Your task to perform on an android device: change timer sound Image 0: 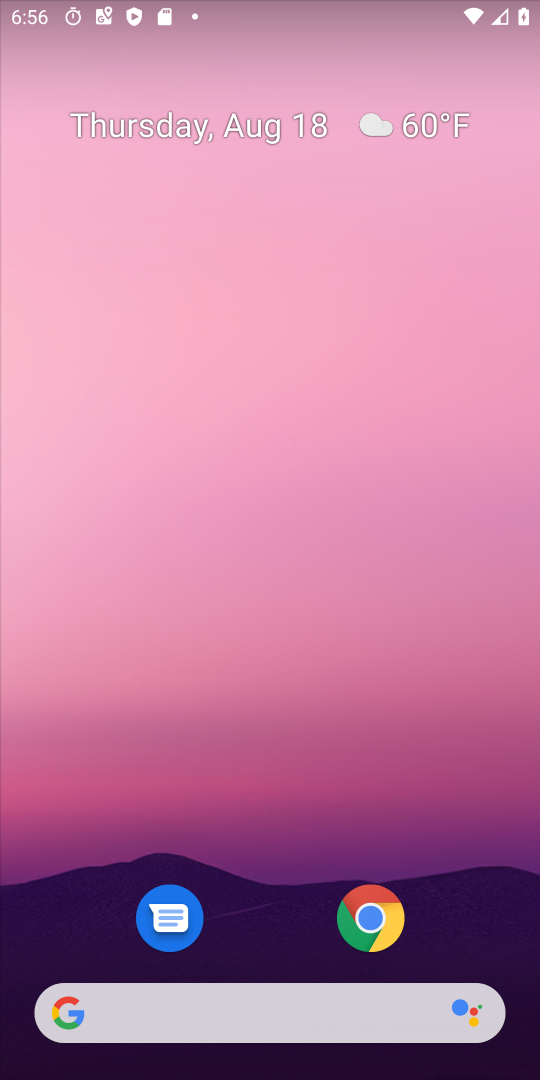
Step 0: press home button
Your task to perform on an android device: change timer sound Image 1: 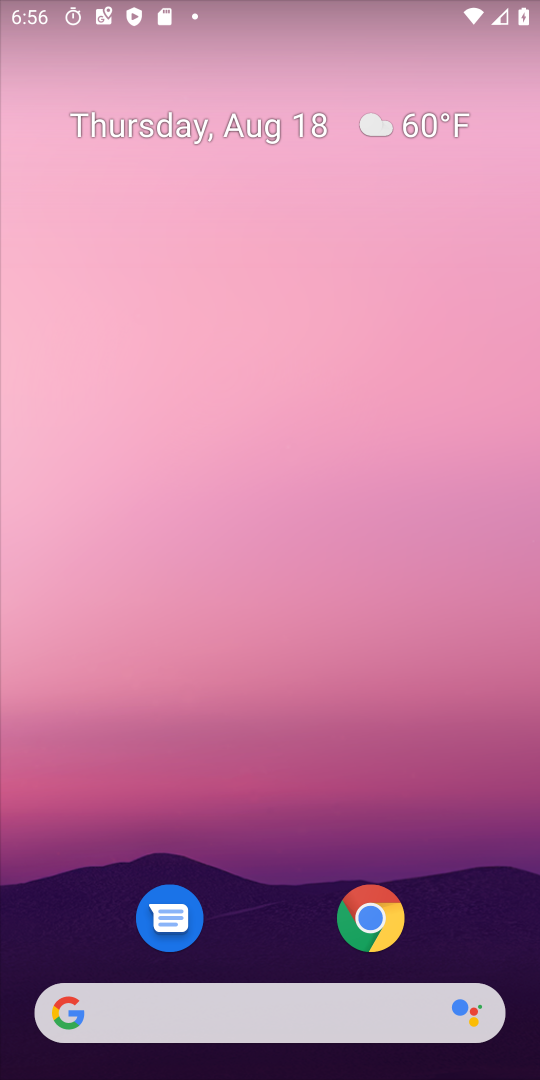
Step 1: drag from (261, 954) to (285, 110)
Your task to perform on an android device: change timer sound Image 2: 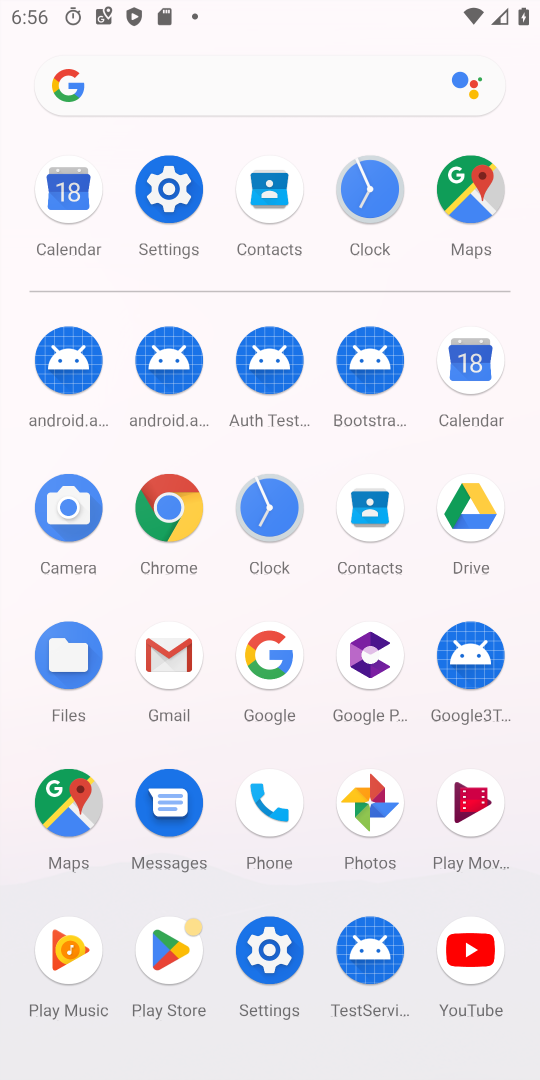
Step 2: click (364, 213)
Your task to perform on an android device: change timer sound Image 3: 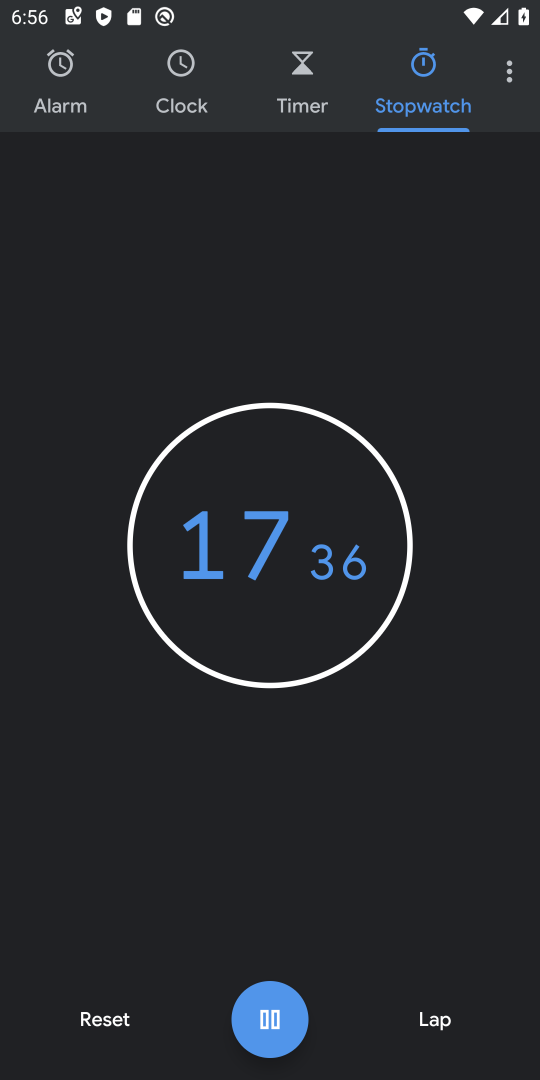
Step 3: click (509, 79)
Your task to perform on an android device: change timer sound Image 4: 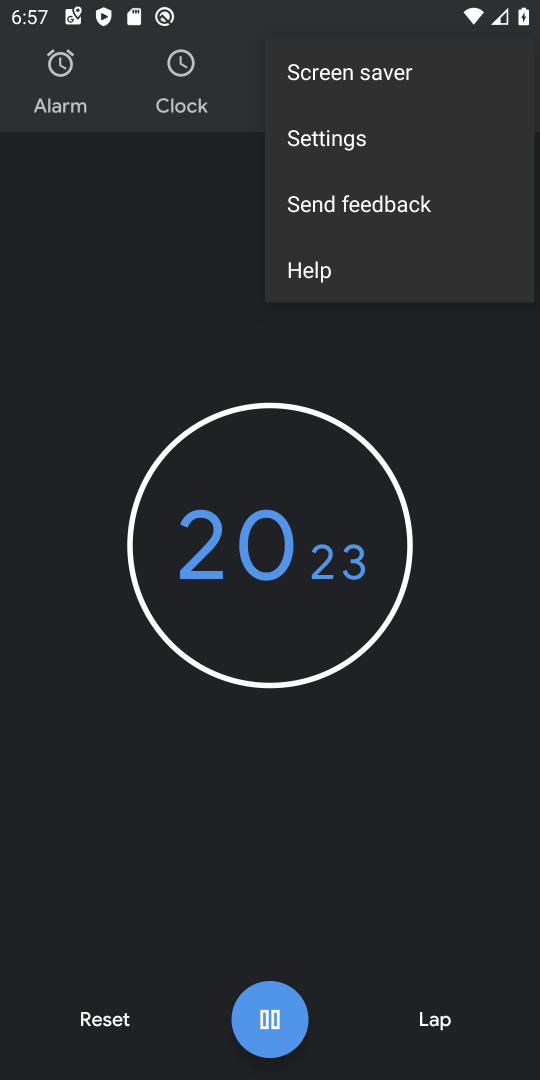
Step 4: click (340, 149)
Your task to perform on an android device: change timer sound Image 5: 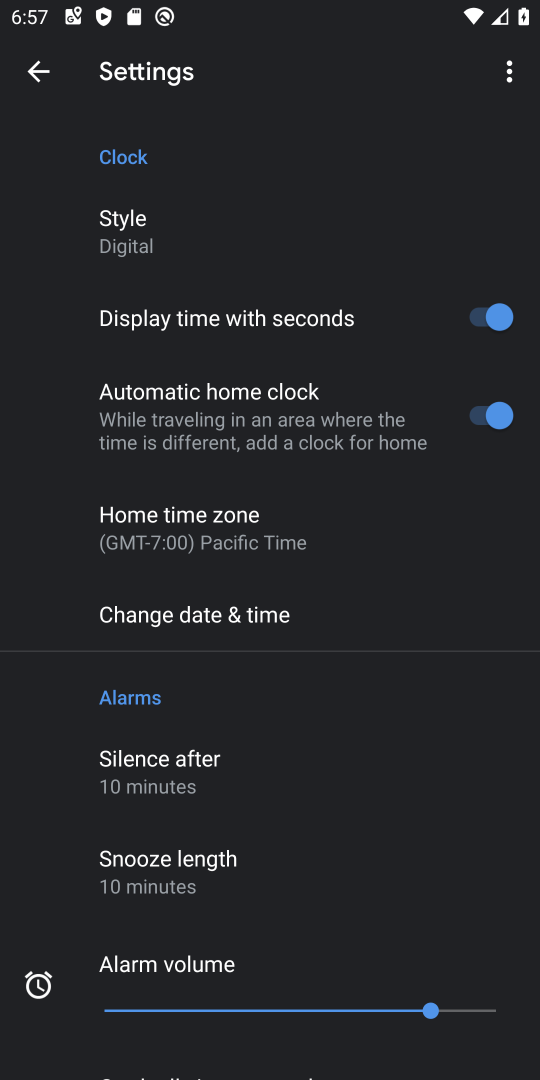
Step 5: drag from (343, 862) to (249, 120)
Your task to perform on an android device: change timer sound Image 6: 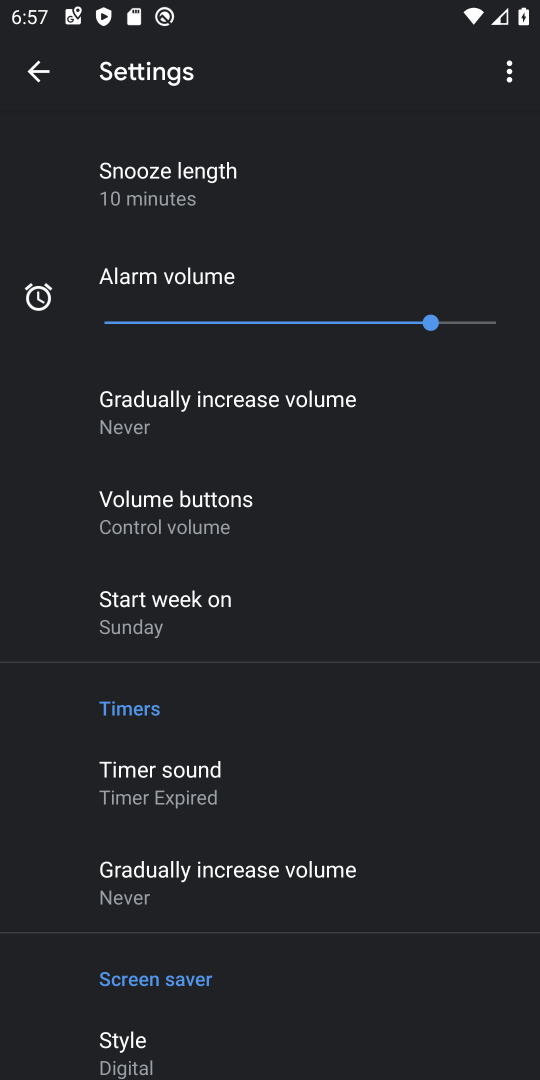
Step 6: click (151, 776)
Your task to perform on an android device: change timer sound Image 7: 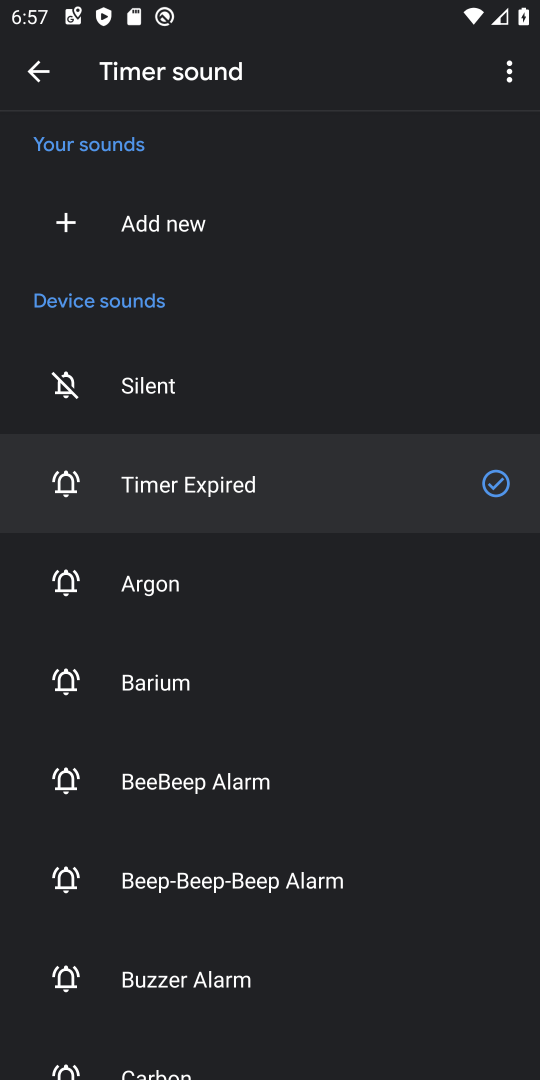
Step 7: click (165, 589)
Your task to perform on an android device: change timer sound Image 8: 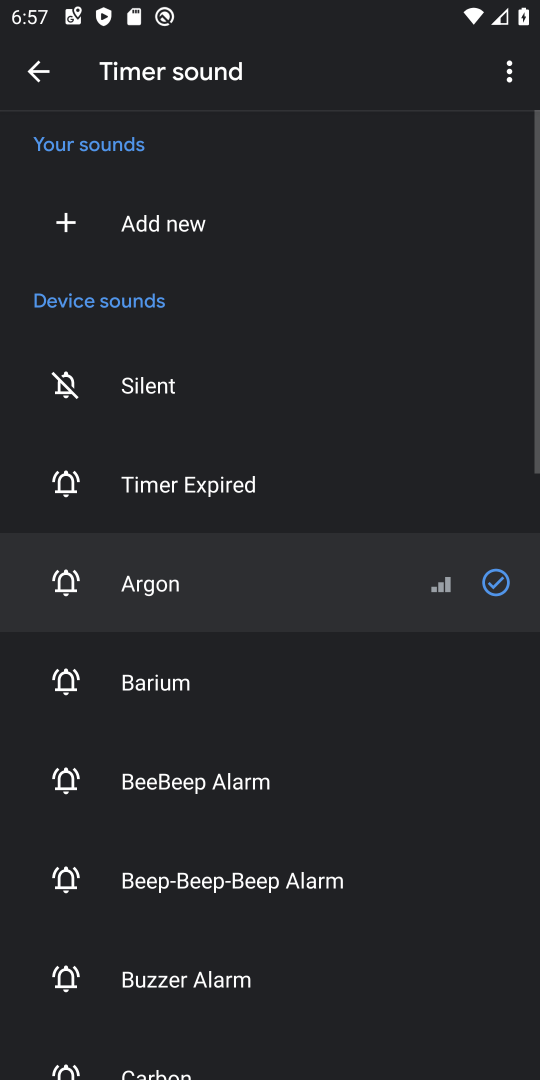
Step 8: task complete